Your task to perform on an android device: Open sound settings Image 0: 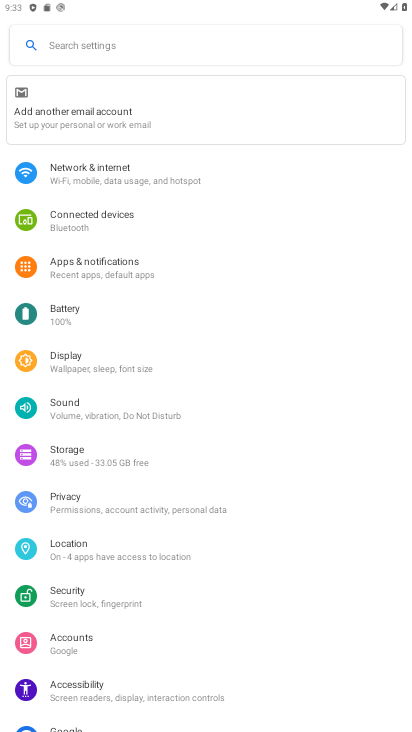
Step 0: click (115, 407)
Your task to perform on an android device: Open sound settings Image 1: 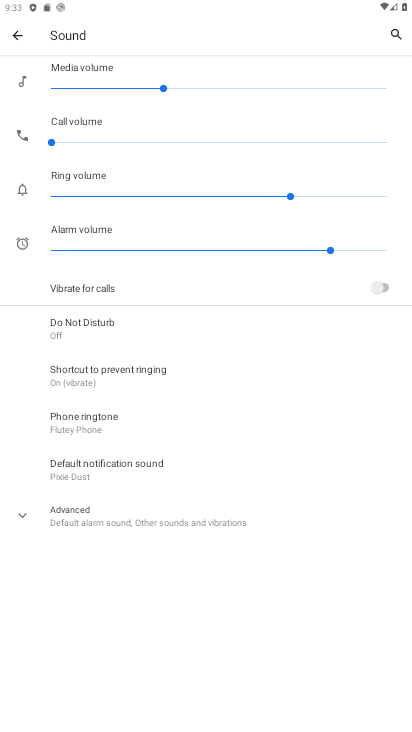
Step 1: task complete